Your task to perform on an android device: Search for apple airpods on walmart, select the first entry, add it to the cart, then select checkout. Image 0: 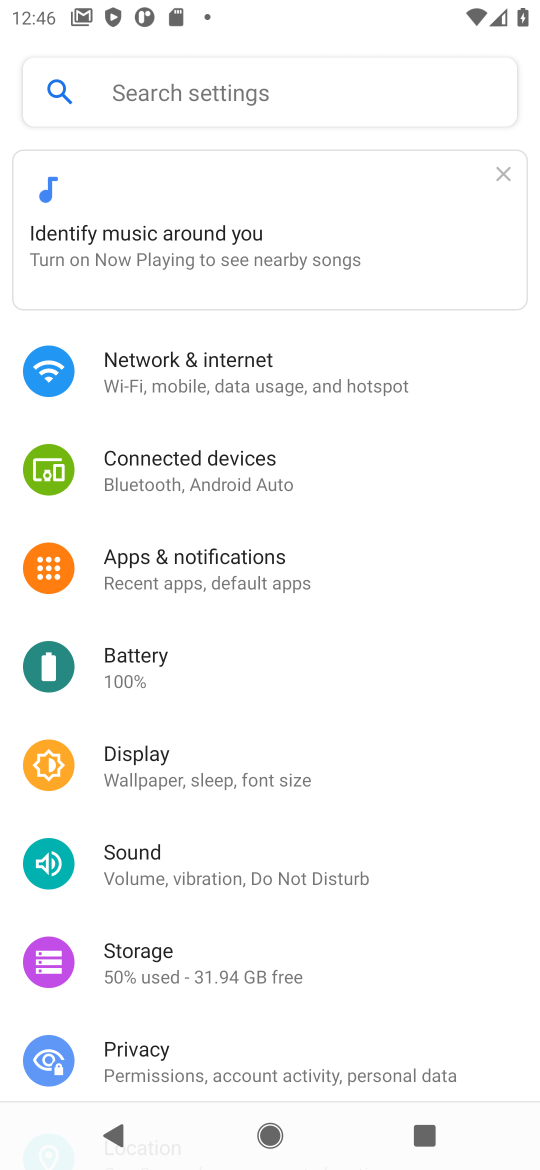
Step 0: press home button
Your task to perform on an android device: Search for apple airpods on walmart, select the first entry, add it to the cart, then select checkout. Image 1: 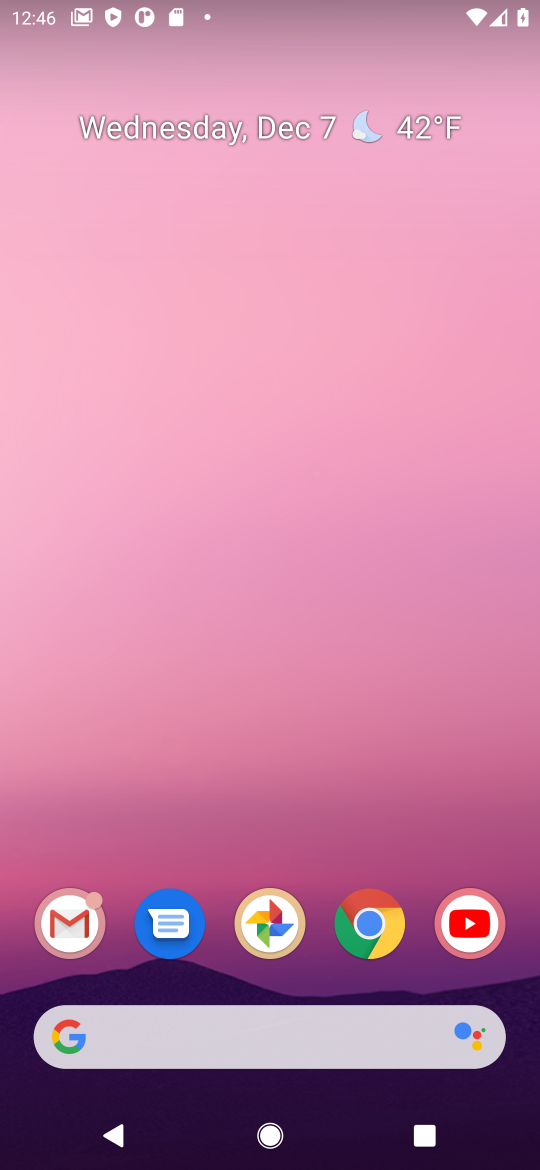
Step 1: click (369, 911)
Your task to perform on an android device: Search for apple airpods on walmart, select the first entry, add it to the cart, then select checkout. Image 2: 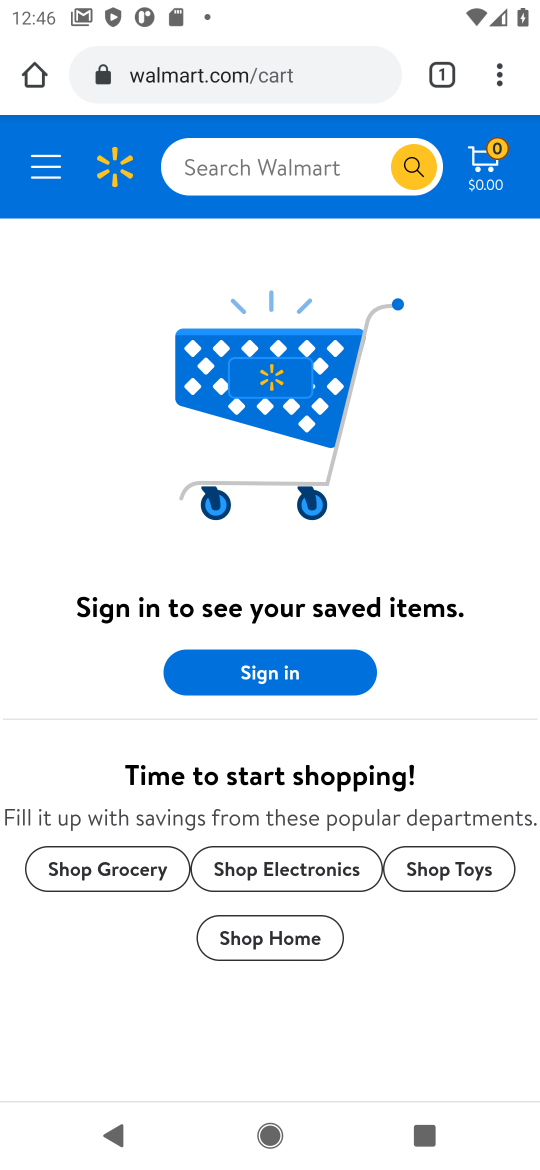
Step 2: click (294, 168)
Your task to perform on an android device: Search for apple airpods on walmart, select the first entry, add it to the cart, then select checkout. Image 3: 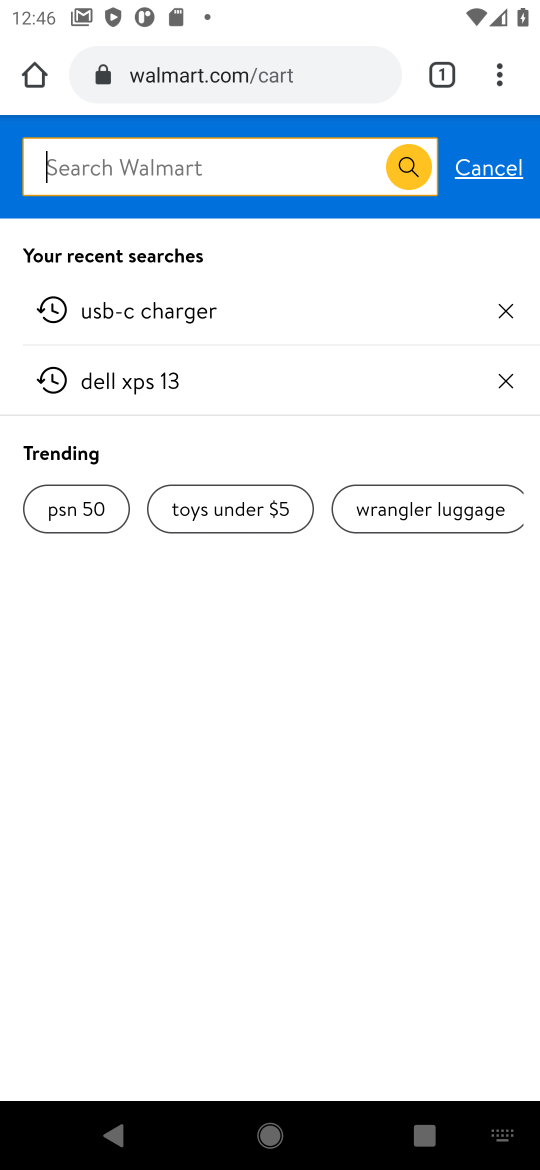
Step 3: type "apple airpods"
Your task to perform on an android device: Search for apple airpods on walmart, select the first entry, add it to the cart, then select checkout. Image 4: 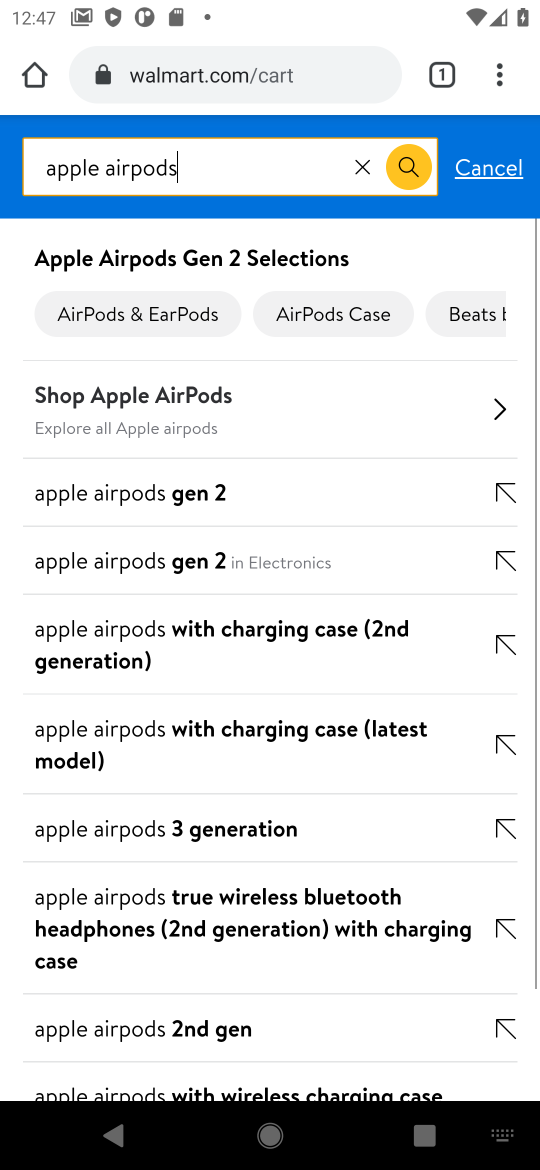
Step 4: click (187, 258)
Your task to perform on an android device: Search for apple airpods on walmart, select the first entry, add it to the cart, then select checkout. Image 5: 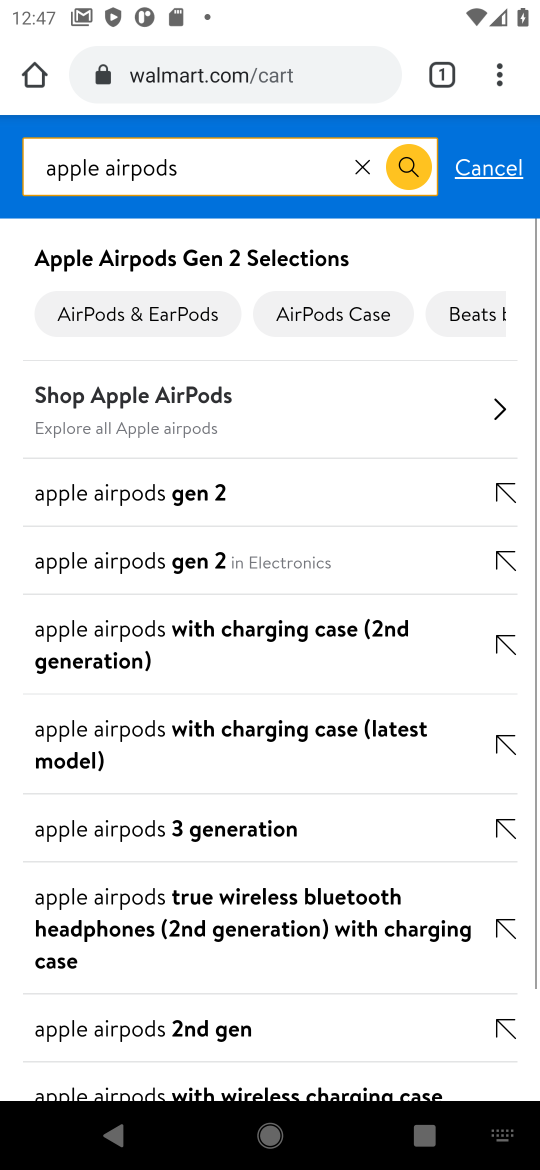
Step 5: click (63, 261)
Your task to perform on an android device: Search for apple airpods on walmart, select the first entry, add it to the cart, then select checkout. Image 6: 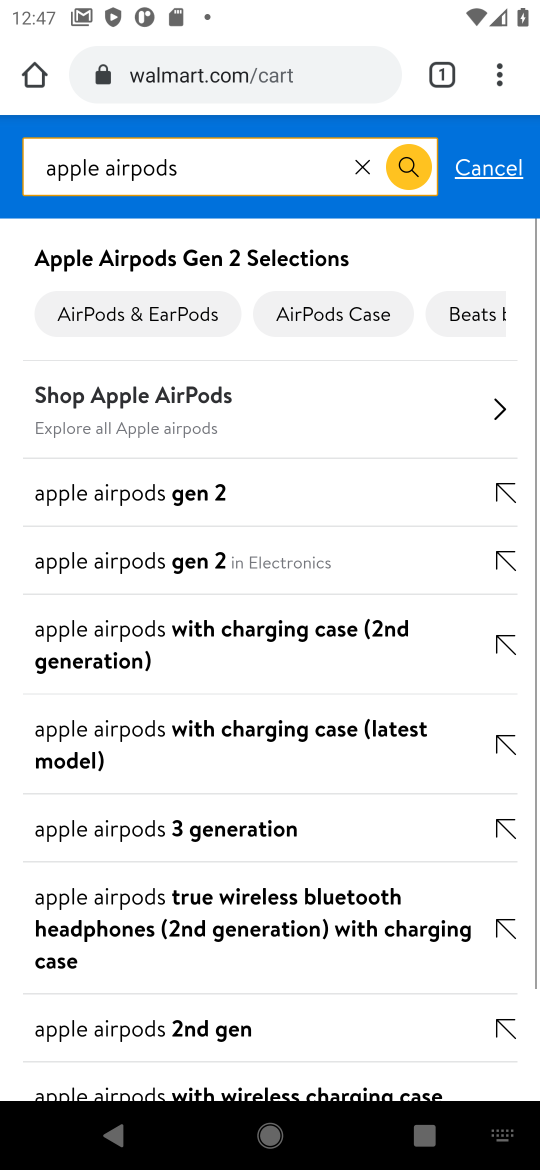
Step 6: click (39, 275)
Your task to perform on an android device: Search for apple airpods on walmart, select the first entry, add it to the cart, then select checkout. Image 7: 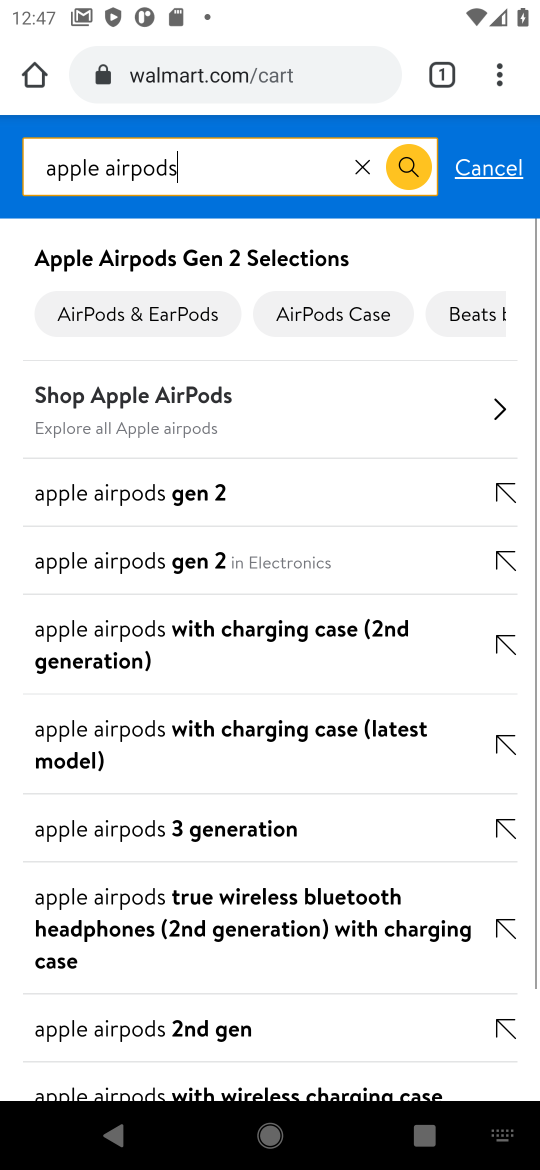
Step 7: click (104, 407)
Your task to perform on an android device: Search for apple airpods on walmart, select the first entry, add it to the cart, then select checkout. Image 8: 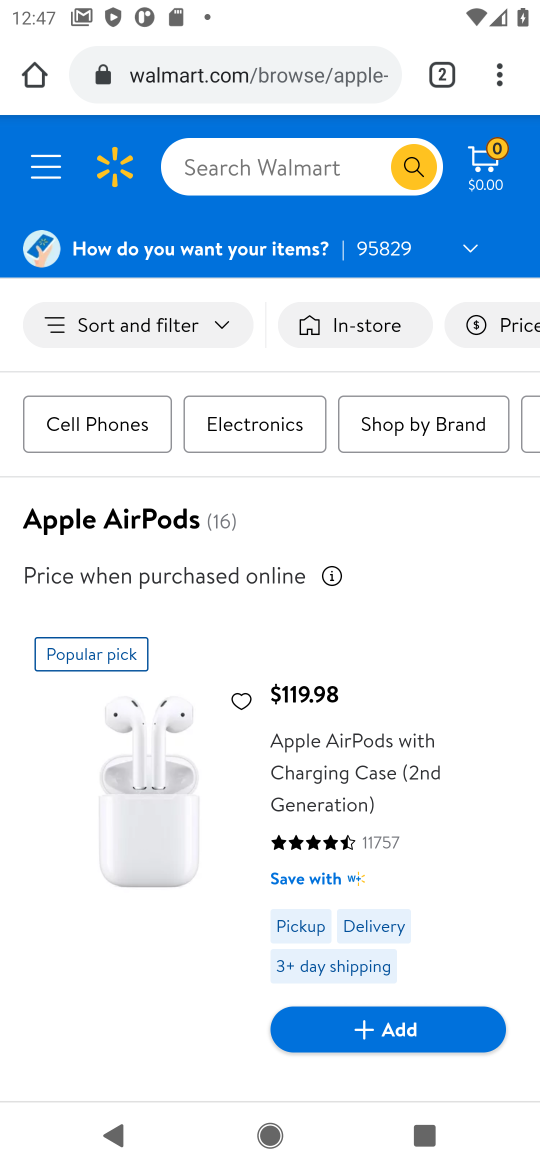
Step 8: click (362, 1031)
Your task to perform on an android device: Search for apple airpods on walmart, select the first entry, add it to the cart, then select checkout. Image 9: 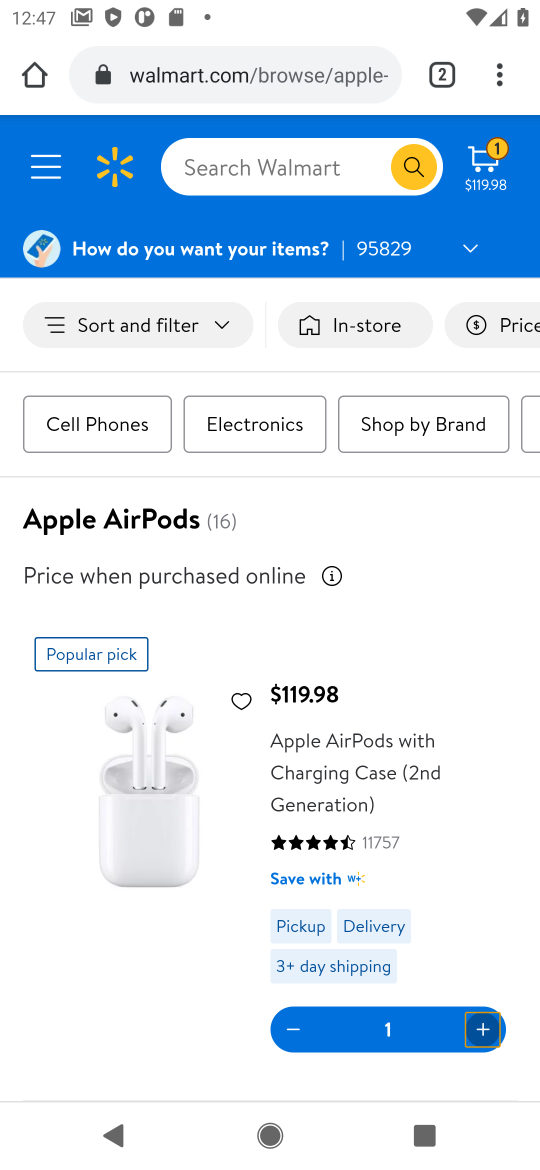
Step 9: click (482, 152)
Your task to perform on an android device: Search for apple airpods on walmart, select the first entry, add it to the cart, then select checkout. Image 10: 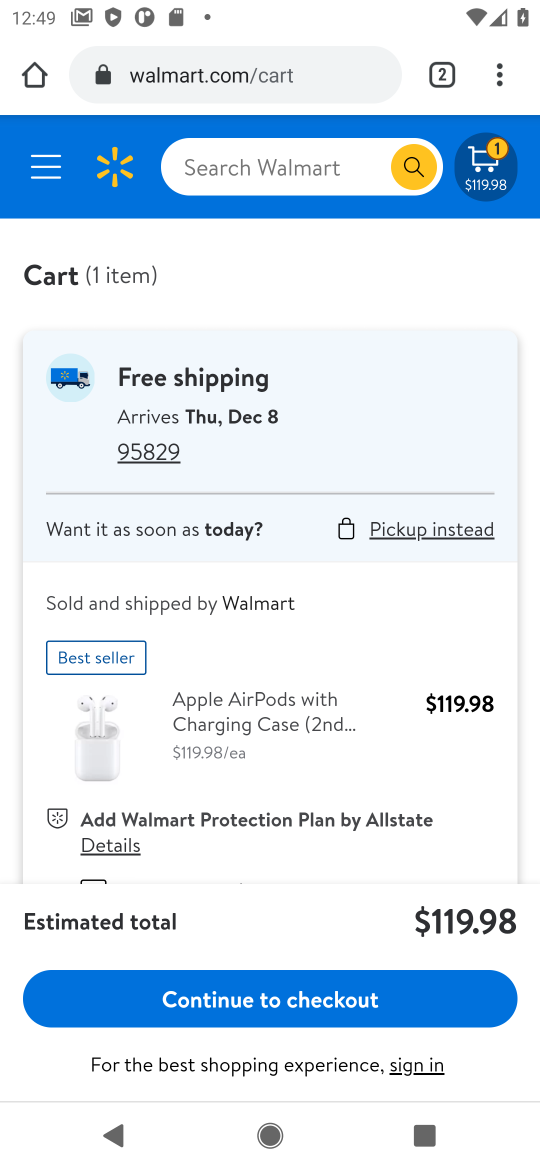
Step 10: click (355, 995)
Your task to perform on an android device: Search for apple airpods on walmart, select the first entry, add it to the cart, then select checkout. Image 11: 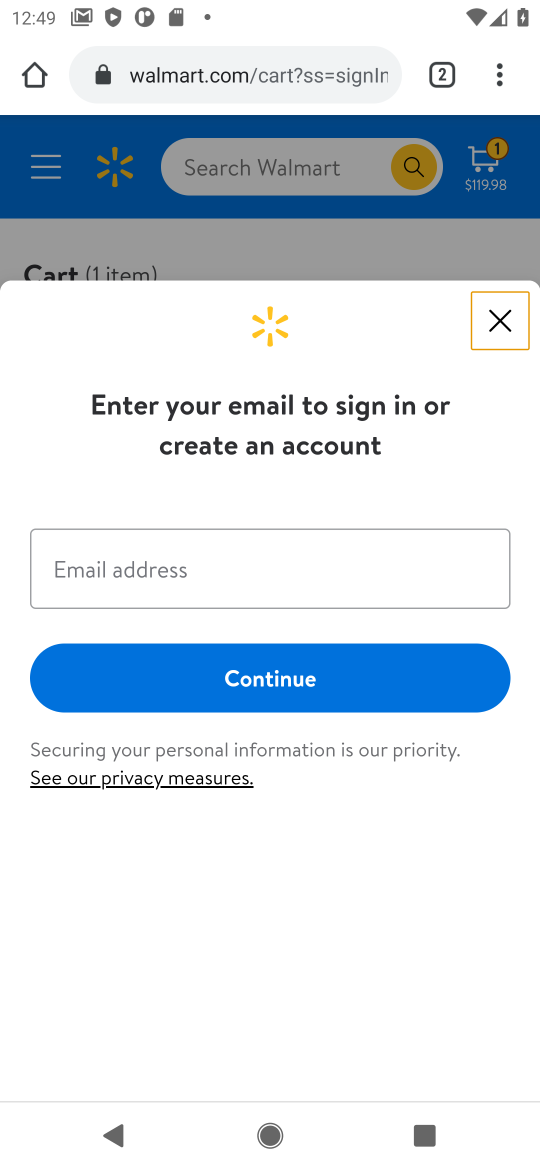
Step 11: task complete